Your task to perform on an android device: turn vacation reply on in the gmail app Image 0: 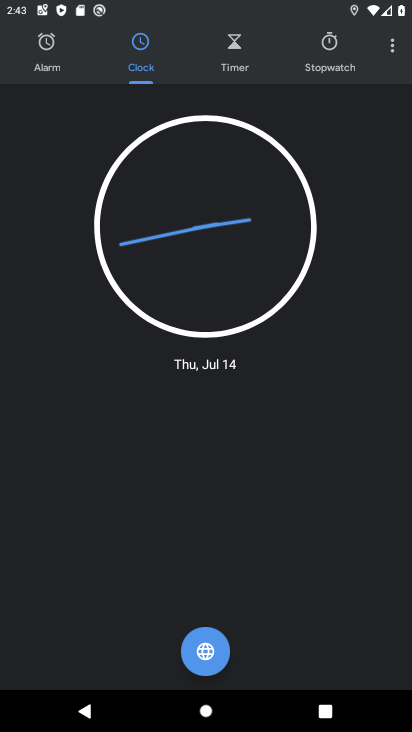
Step 0: press home button
Your task to perform on an android device: turn vacation reply on in the gmail app Image 1: 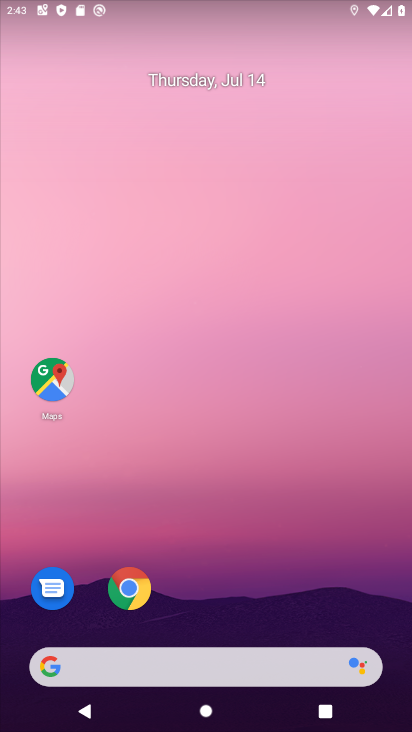
Step 1: drag from (174, 641) to (117, 3)
Your task to perform on an android device: turn vacation reply on in the gmail app Image 2: 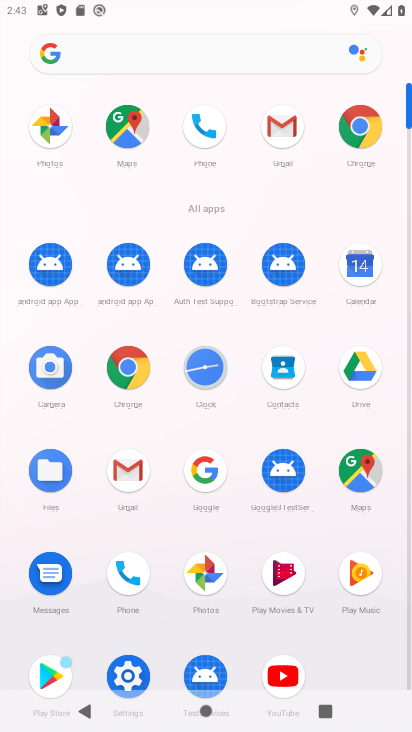
Step 2: click (140, 470)
Your task to perform on an android device: turn vacation reply on in the gmail app Image 3: 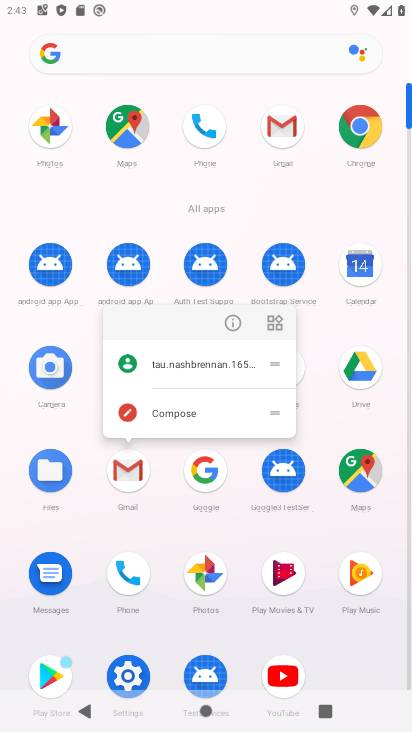
Step 3: click (136, 475)
Your task to perform on an android device: turn vacation reply on in the gmail app Image 4: 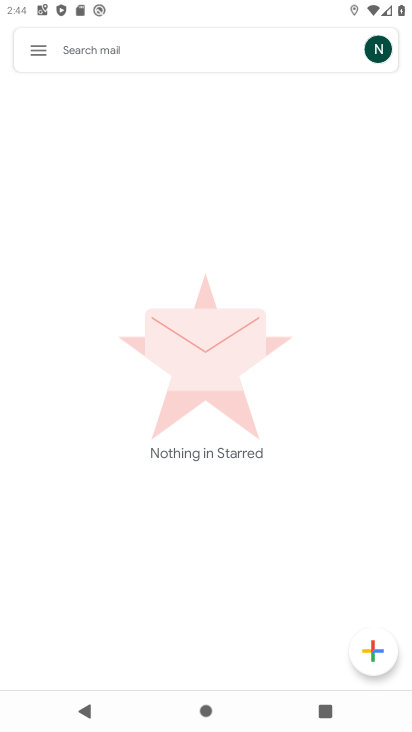
Step 4: click (37, 45)
Your task to perform on an android device: turn vacation reply on in the gmail app Image 5: 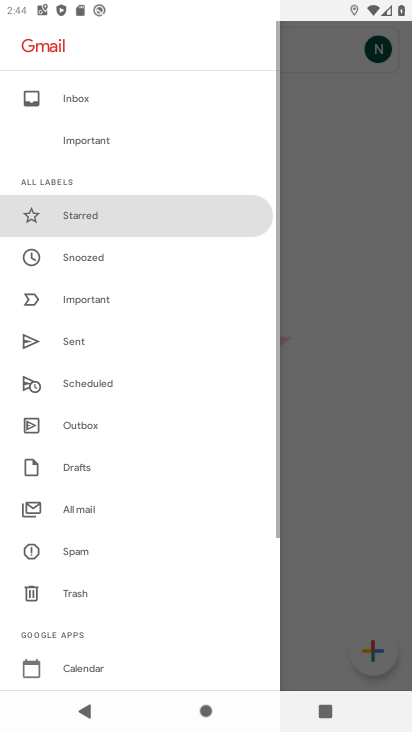
Step 5: drag from (59, 586) to (78, 97)
Your task to perform on an android device: turn vacation reply on in the gmail app Image 6: 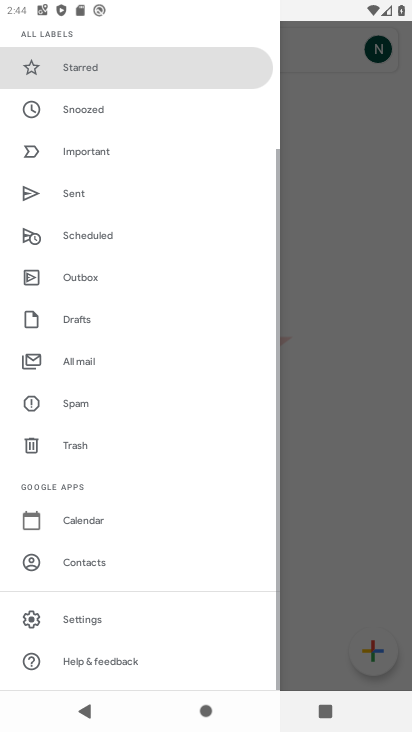
Step 6: click (89, 624)
Your task to perform on an android device: turn vacation reply on in the gmail app Image 7: 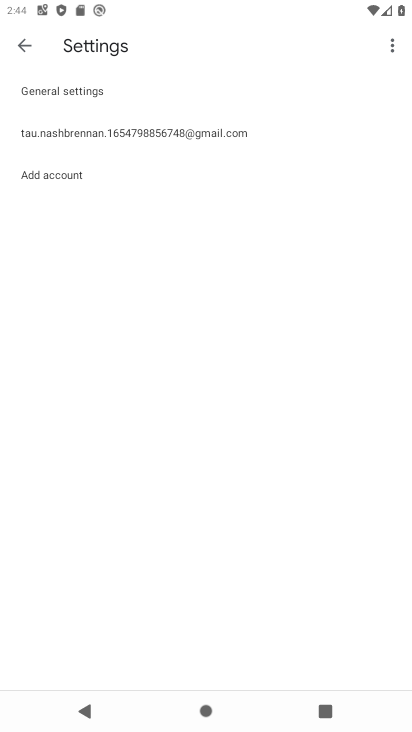
Step 7: click (140, 138)
Your task to perform on an android device: turn vacation reply on in the gmail app Image 8: 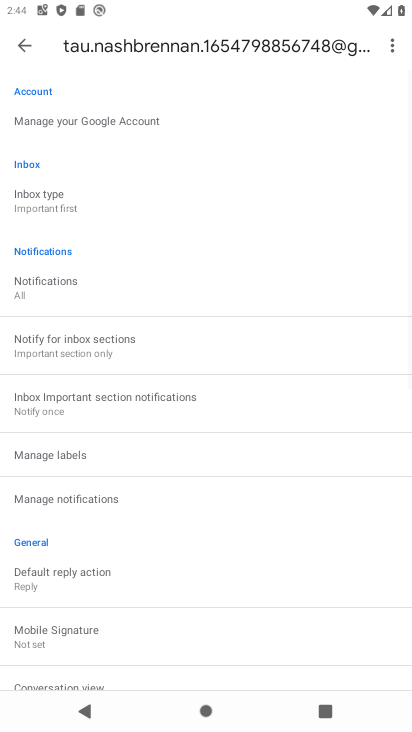
Step 8: drag from (105, 564) to (99, 158)
Your task to perform on an android device: turn vacation reply on in the gmail app Image 9: 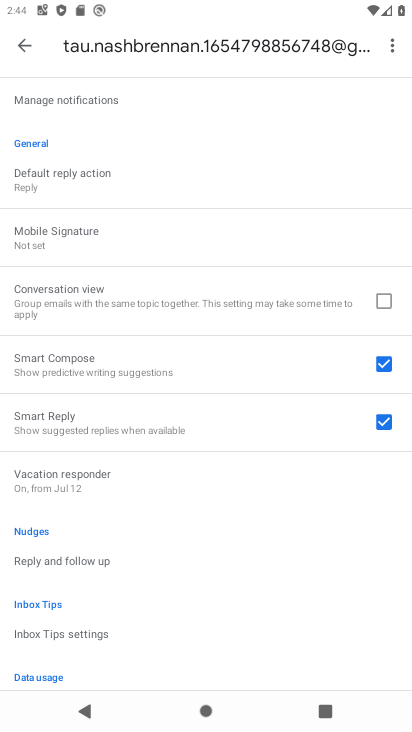
Step 9: click (118, 468)
Your task to perform on an android device: turn vacation reply on in the gmail app Image 10: 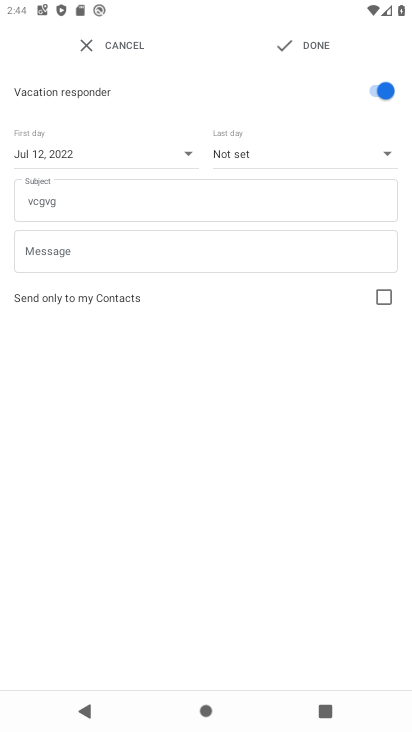
Step 10: click (322, 50)
Your task to perform on an android device: turn vacation reply on in the gmail app Image 11: 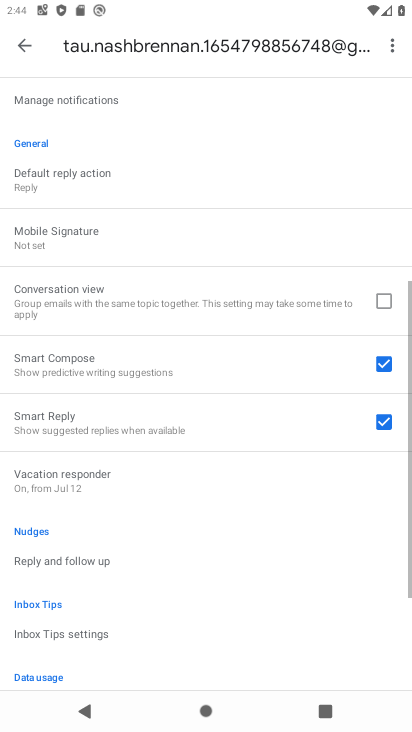
Step 11: task complete